Your task to perform on an android device: Open accessibility settings Image 0: 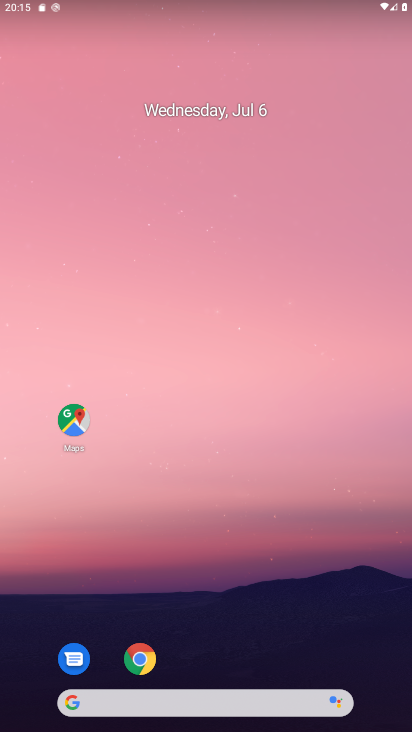
Step 0: drag from (206, 659) to (205, 114)
Your task to perform on an android device: Open accessibility settings Image 1: 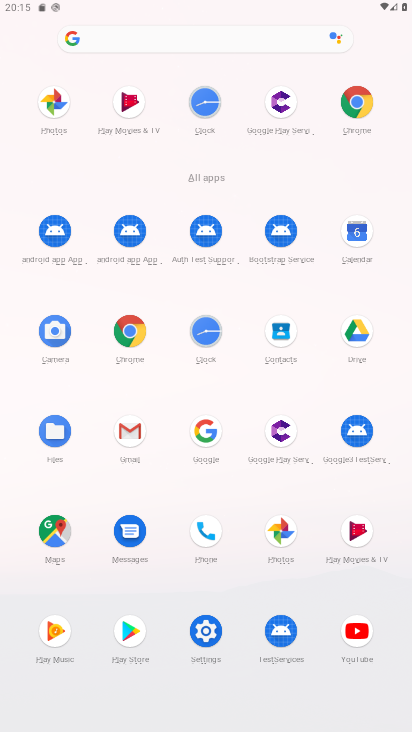
Step 1: click (205, 643)
Your task to perform on an android device: Open accessibility settings Image 2: 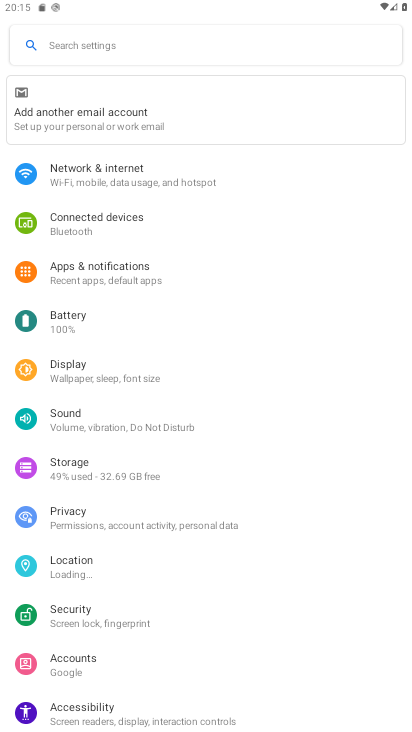
Step 2: click (73, 709)
Your task to perform on an android device: Open accessibility settings Image 3: 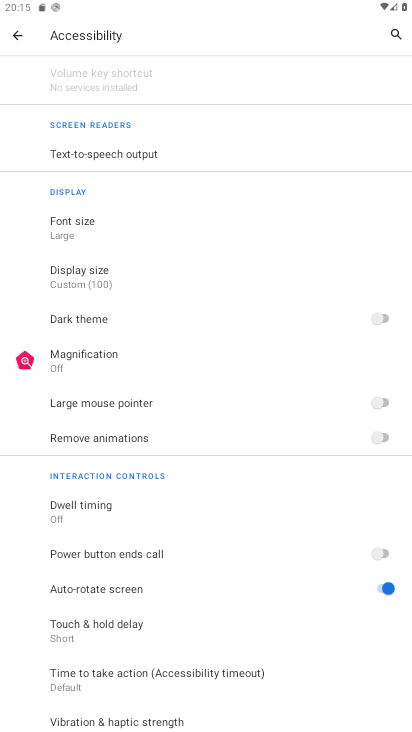
Step 3: task complete